Your task to perform on an android device: What's the weather today? Image 0: 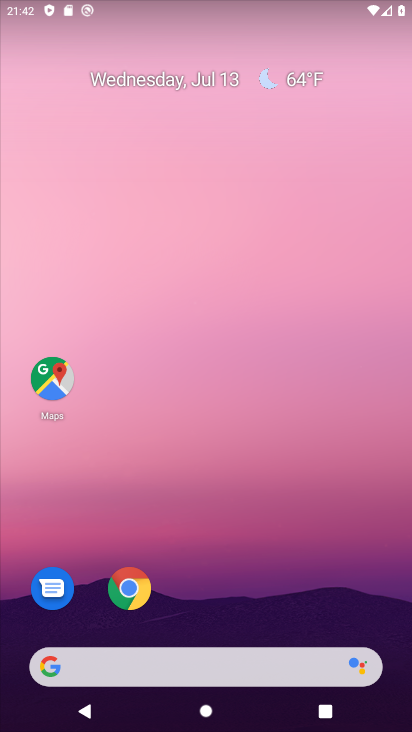
Step 0: click (200, 656)
Your task to perform on an android device: What's the weather today? Image 1: 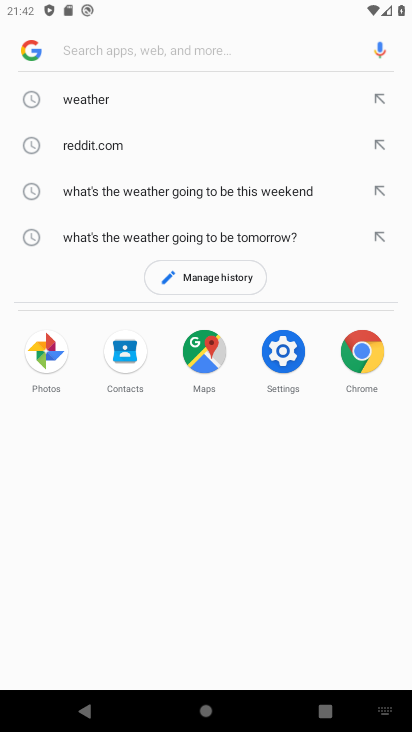
Step 1: click (97, 100)
Your task to perform on an android device: What's the weather today? Image 2: 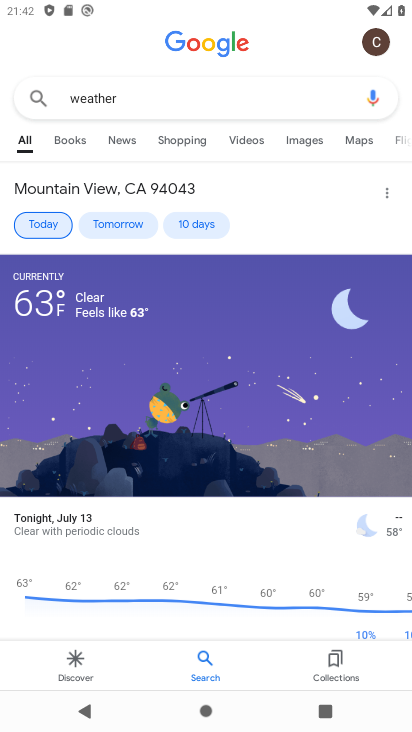
Step 2: click (165, 94)
Your task to perform on an android device: What's the weather today? Image 3: 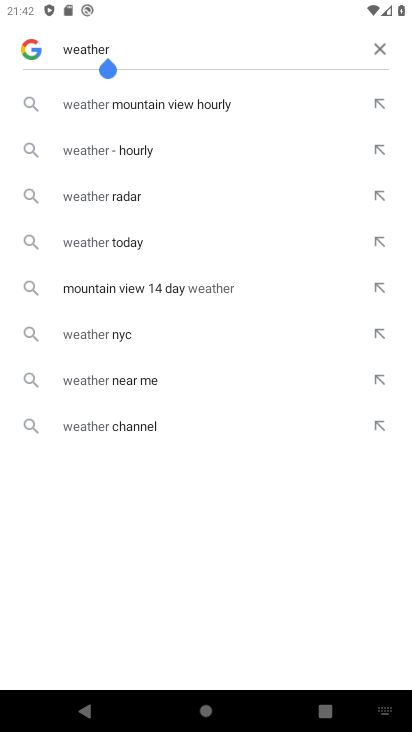
Step 3: click (105, 246)
Your task to perform on an android device: What's the weather today? Image 4: 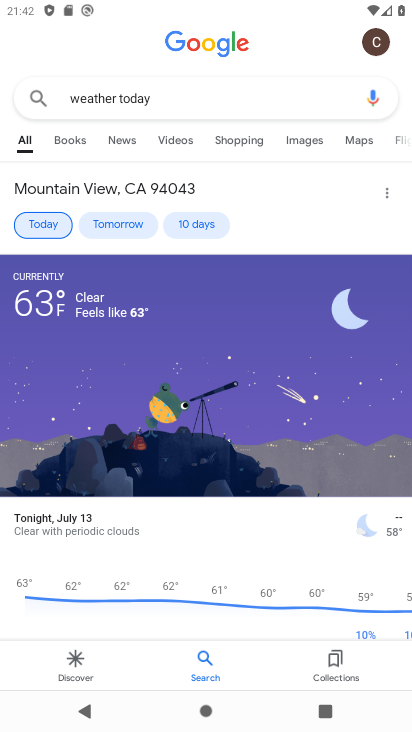
Step 4: task complete